Your task to perform on an android device: What is the recent news? Image 0: 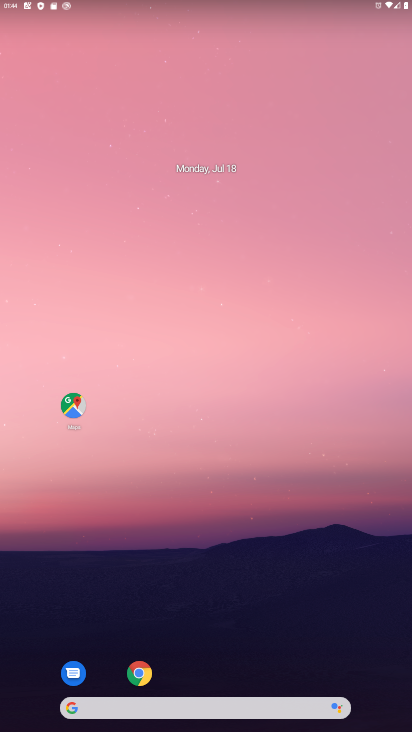
Step 0: click (218, 707)
Your task to perform on an android device: What is the recent news? Image 1: 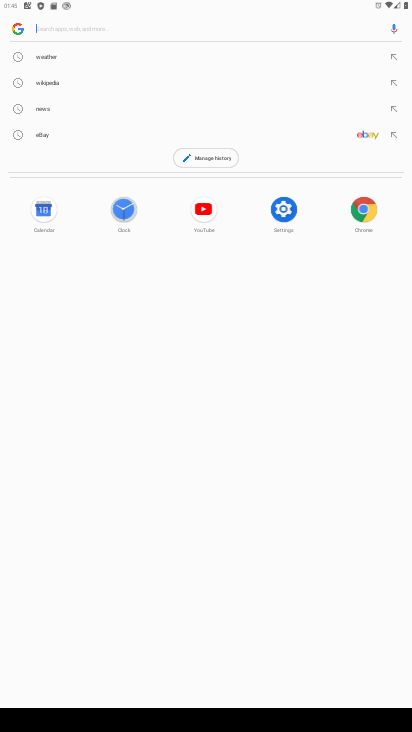
Step 1: click (68, 114)
Your task to perform on an android device: What is the recent news? Image 2: 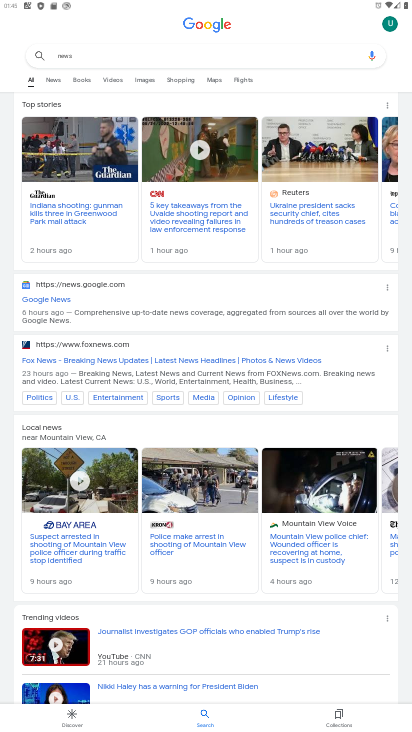
Step 2: task complete